Your task to perform on an android device: stop showing notifications on the lock screen Image 0: 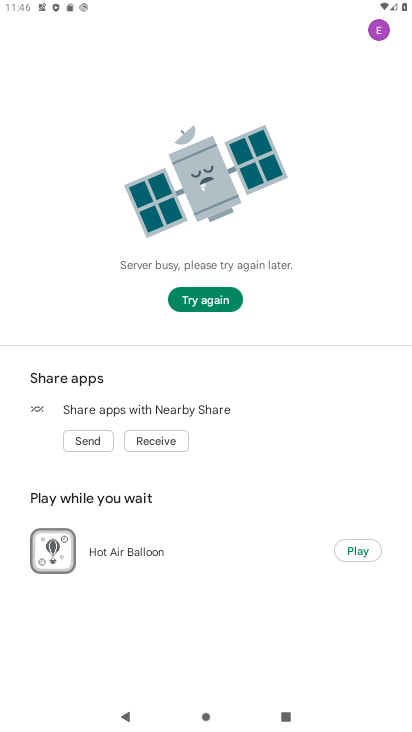
Step 0: press home button
Your task to perform on an android device: stop showing notifications on the lock screen Image 1: 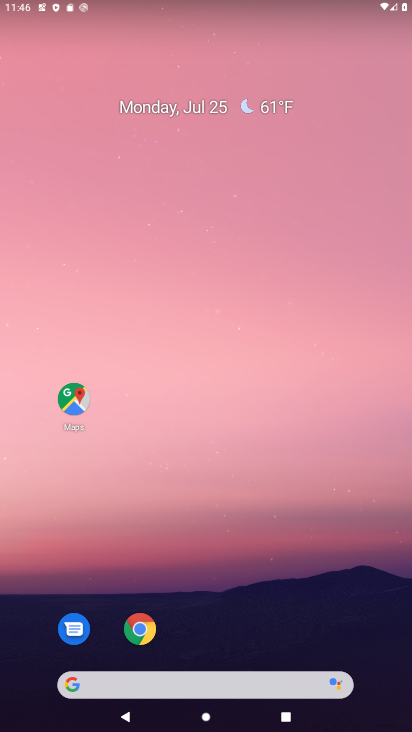
Step 1: drag from (204, 626) to (213, 233)
Your task to perform on an android device: stop showing notifications on the lock screen Image 2: 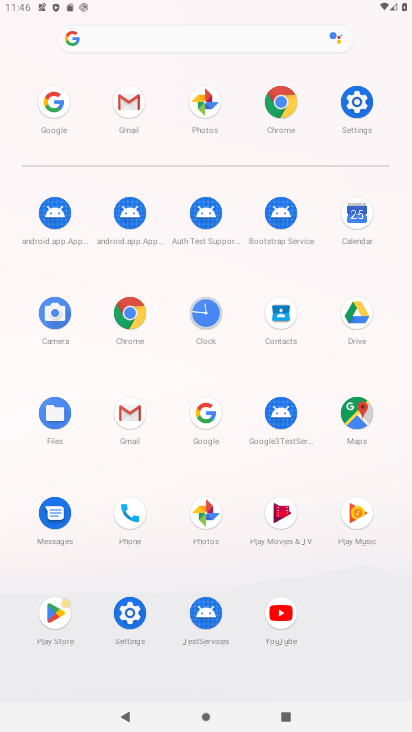
Step 2: click (360, 105)
Your task to perform on an android device: stop showing notifications on the lock screen Image 3: 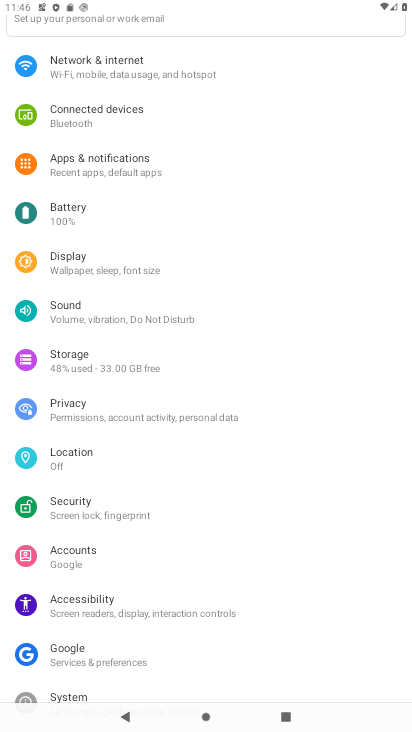
Step 3: click (158, 177)
Your task to perform on an android device: stop showing notifications on the lock screen Image 4: 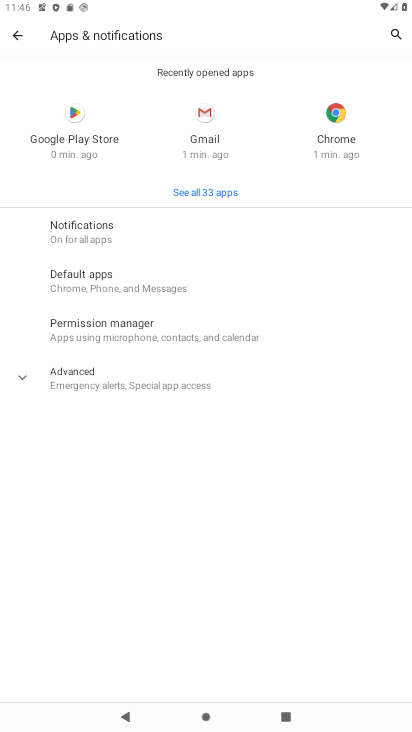
Step 4: click (96, 238)
Your task to perform on an android device: stop showing notifications on the lock screen Image 5: 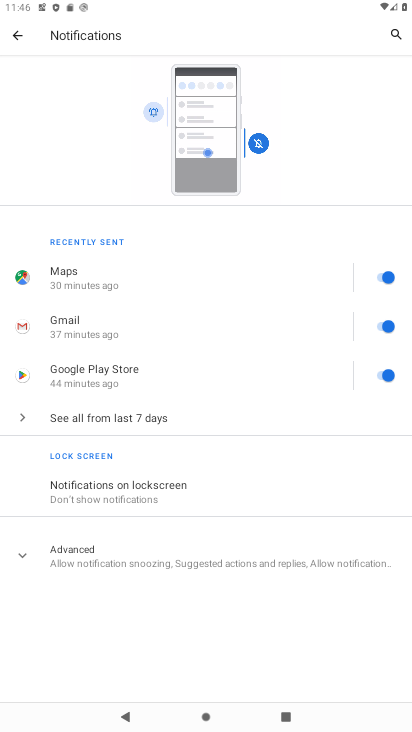
Step 5: click (132, 486)
Your task to perform on an android device: stop showing notifications on the lock screen Image 6: 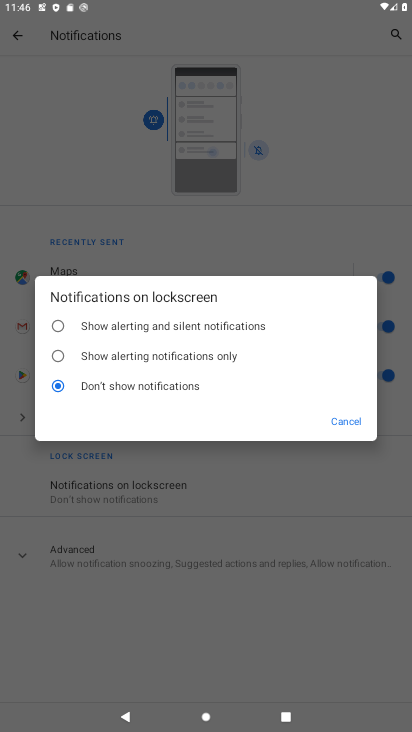
Step 6: task complete